Your task to perform on an android device: open the mobile data screen to see how much data has been used Image 0: 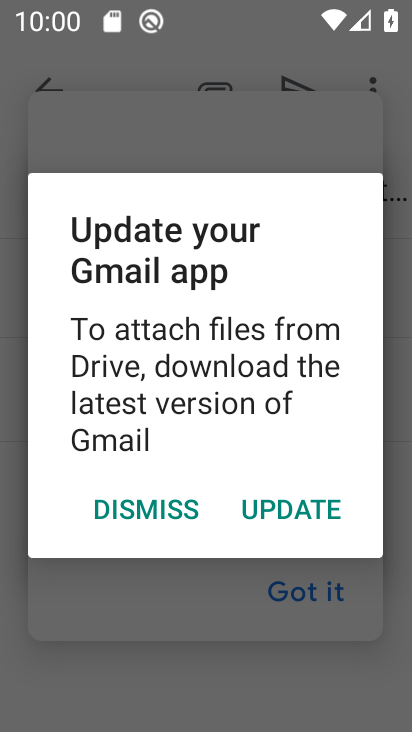
Step 0: press home button
Your task to perform on an android device: open the mobile data screen to see how much data has been used Image 1: 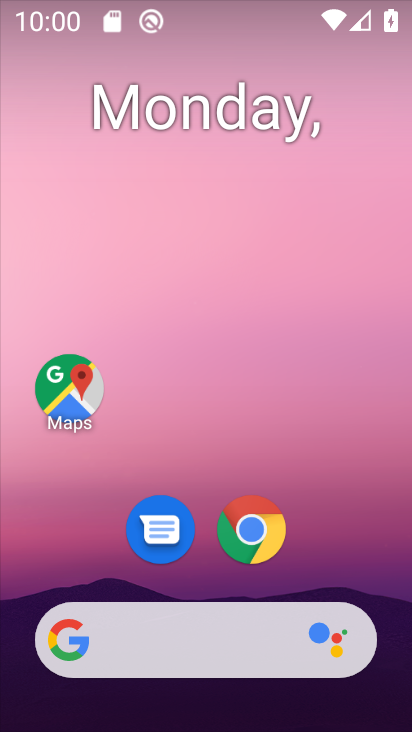
Step 1: drag from (191, 567) to (242, 14)
Your task to perform on an android device: open the mobile data screen to see how much data has been used Image 2: 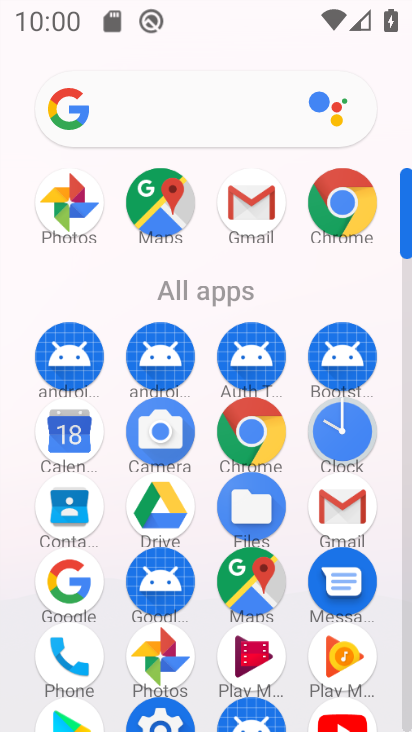
Step 2: click (162, 714)
Your task to perform on an android device: open the mobile data screen to see how much data has been used Image 3: 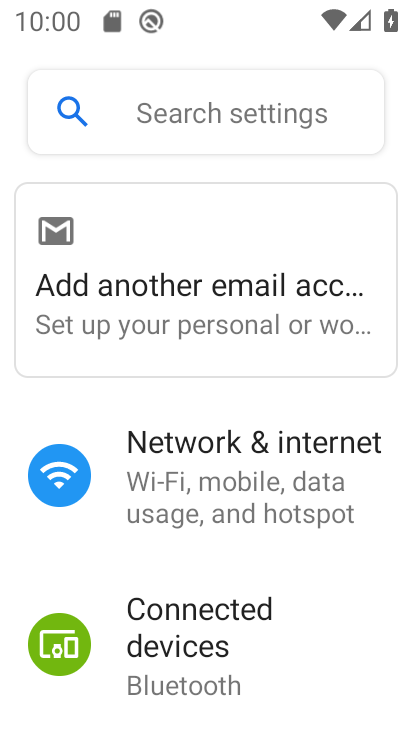
Step 3: click (229, 452)
Your task to perform on an android device: open the mobile data screen to see how much data has been used Image 4: 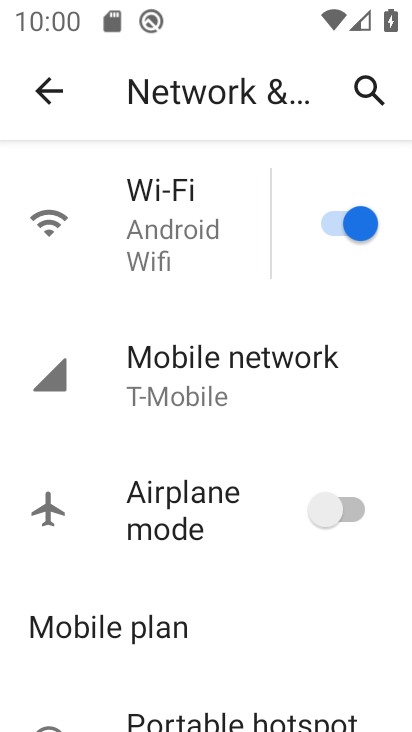
Step 4: click (246, 378)
Your task to perform on an android device: open the mobile data screen to see how much data has been used Image 5: 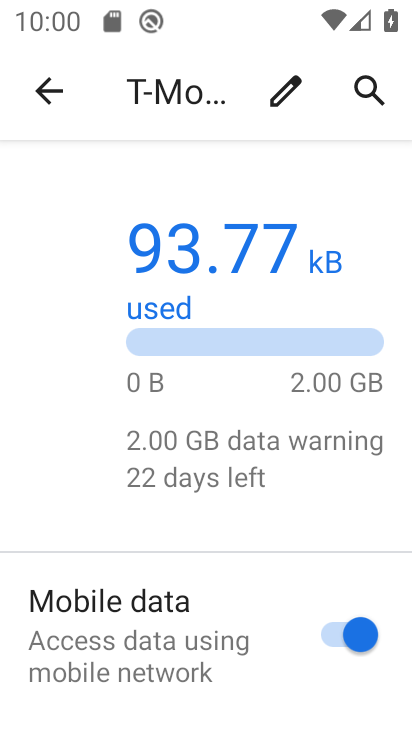
Step 5: task complete